Your task to perform on an android device: check battery use Image 0: 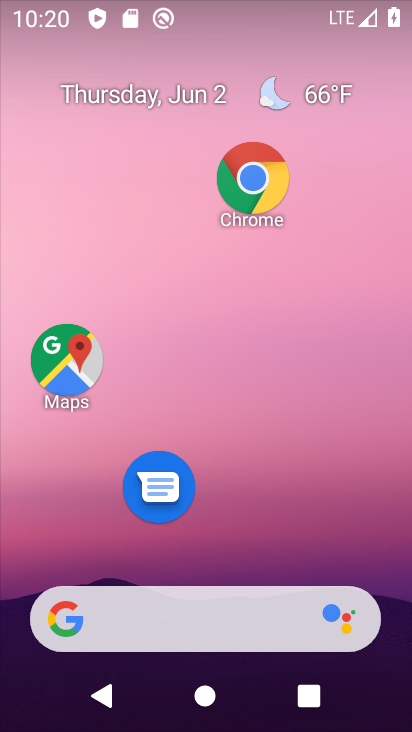
Step 0: drag from (220, 704) to (201, 103)
Your task to perform on an android device: check battery use Image 1: 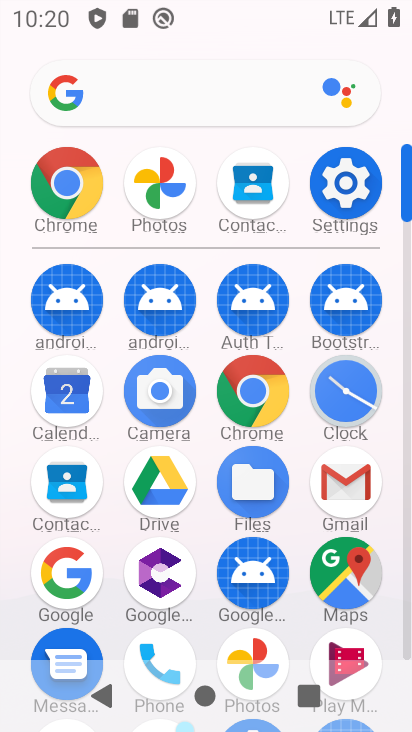
Step 1: click (346, 186)
Your task to perform on an android device: check battery use Image 2: 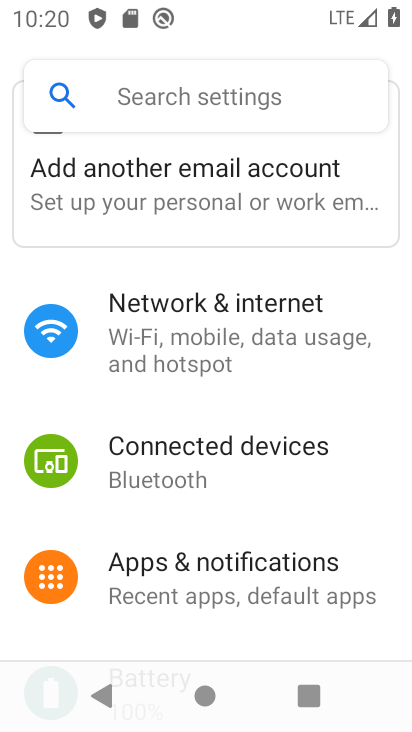
Step 2: drag from (177, 645) to (171, 225)
Your task to perform on an android device: check battery use Image 3: 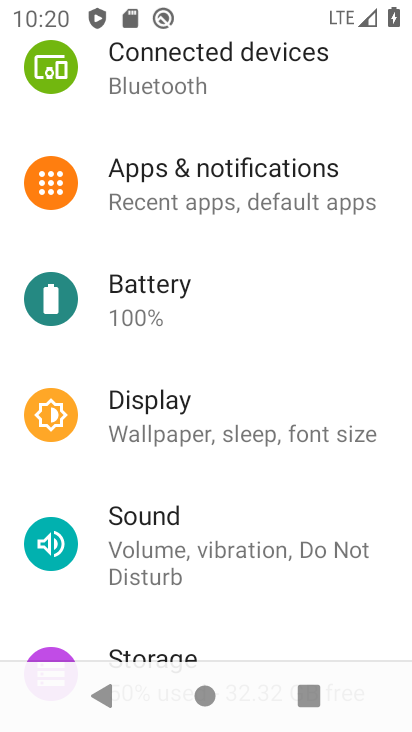
Step 3: click (144, 312)
Your task to perform on an android device: check battery use Image 4: 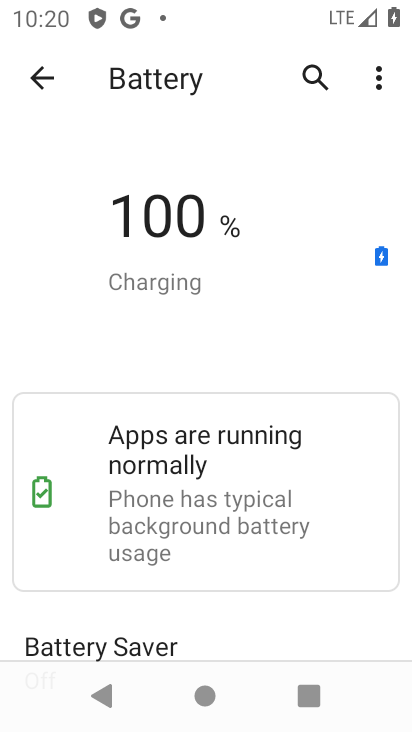
Step 4: click (374, 82)
Your task to perform on an android device: check battery use Image 5: 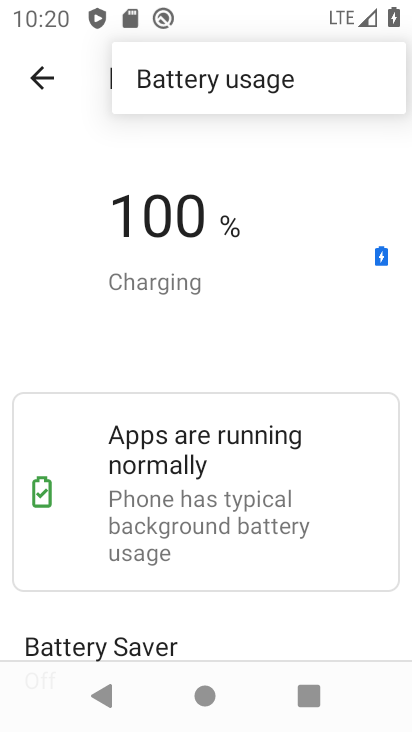
Step 5: click (252, 82)
Your task to perform on an android device: check battery use Image 6: 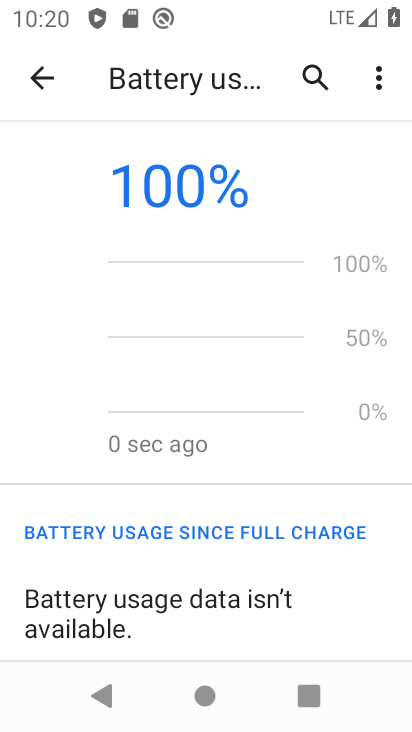
Step 6: task complete